Your task to perform on an android device: Open display settings Image 0: 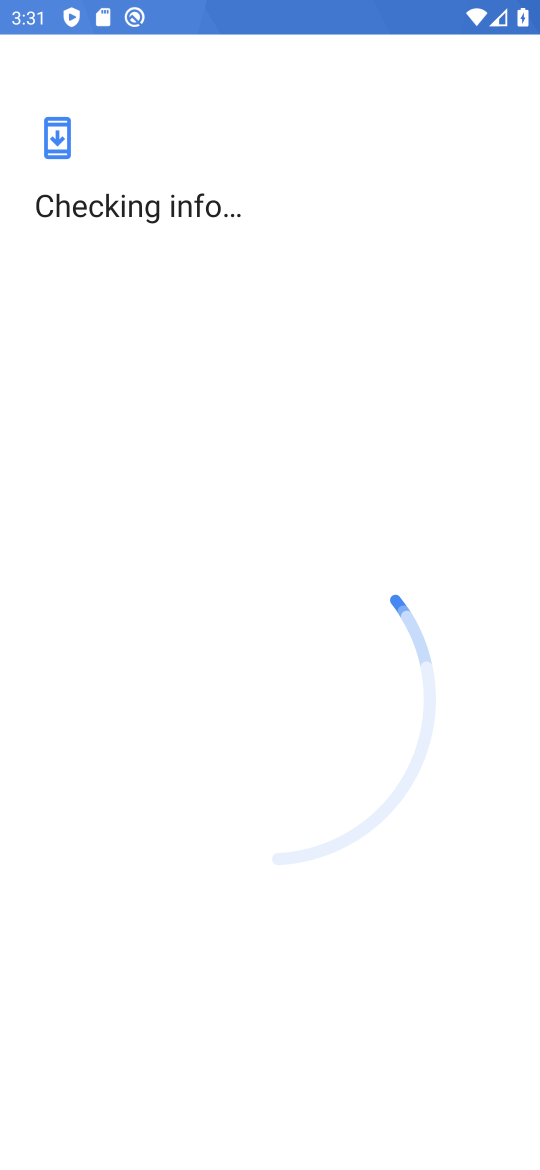
Step 0: drag from (334, 327) to (361, 91)
Your task to perform on an android device: Open display settings Image 1: 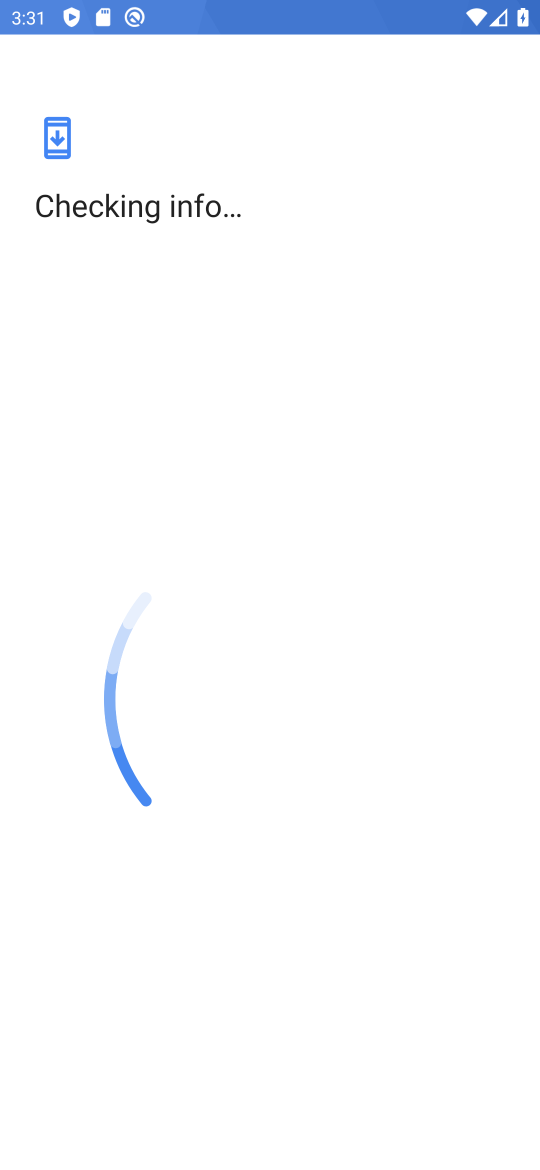
Step 1: press back button
Your task to perform on an android device: Open display settings Image 2: 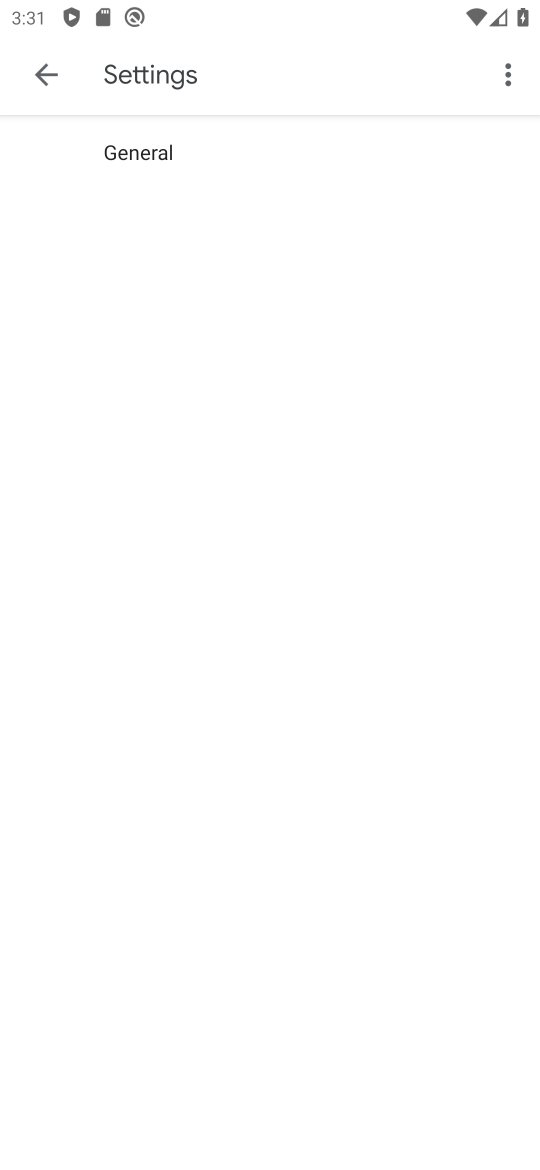
Step 2: press back button
Your task to perform on an android device: Open display settings Image 3: 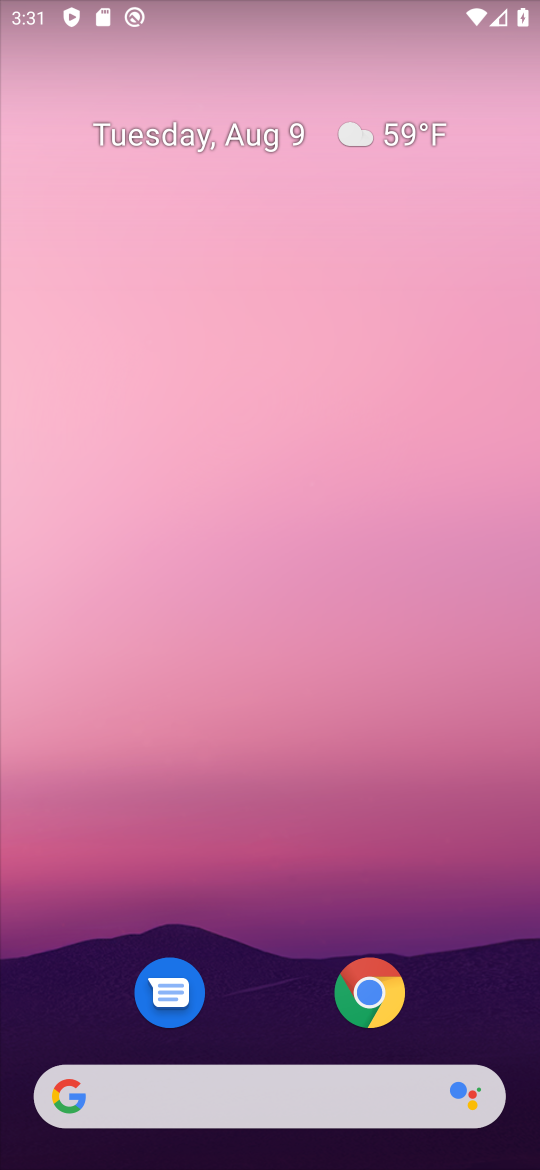
Step 3: drag from (286, 997) to (352, 77)
Your task to perform on an android device: Open display settings Image 4: 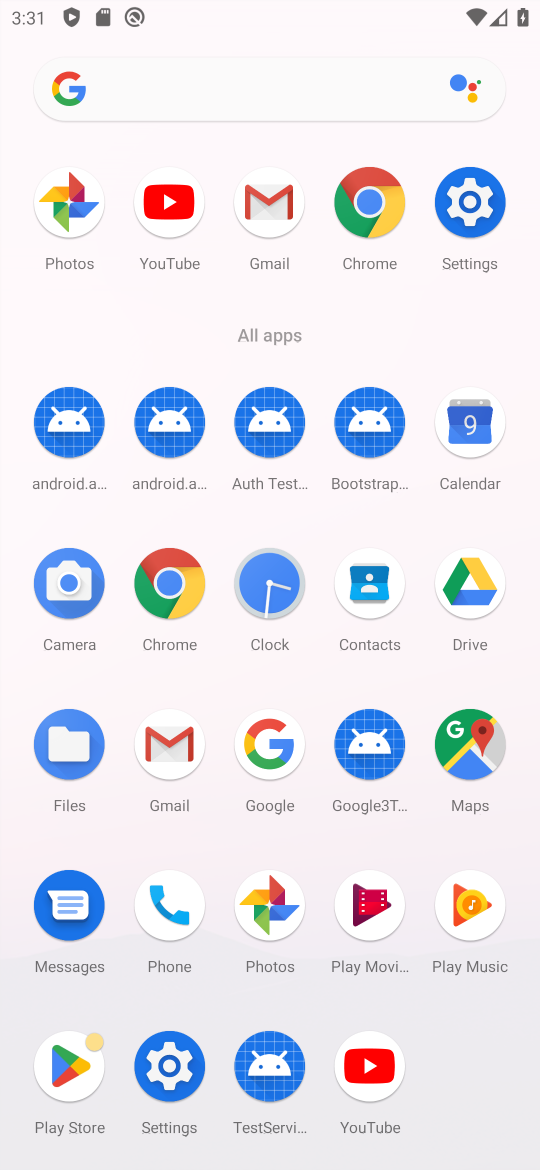
Step 4: click (481, 198)
Your task to perform on an android device: Open display settings Image 5: 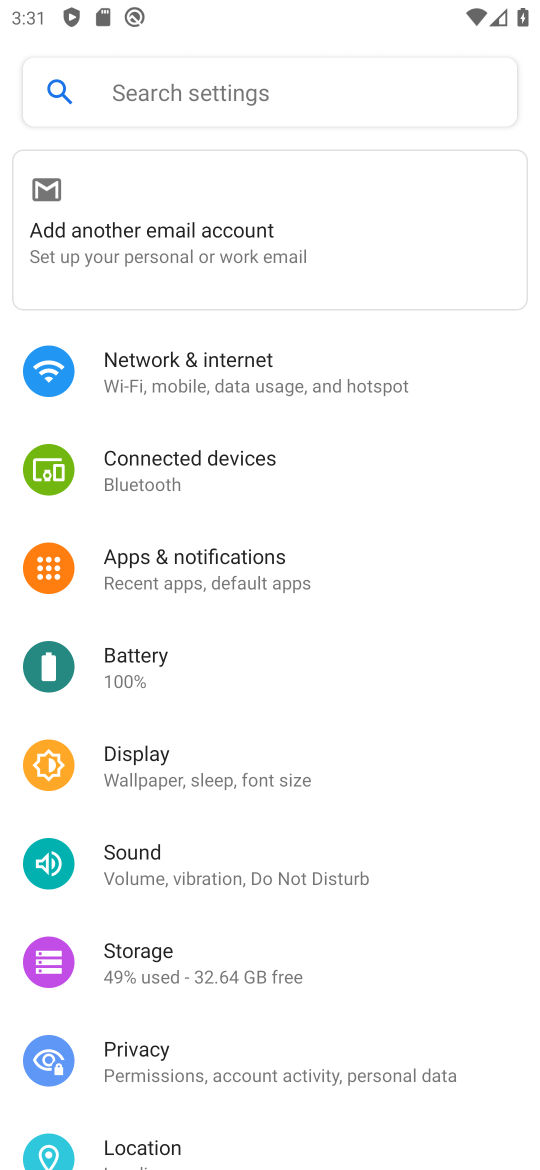
Step 5: click (260, 767)
Your task to perform on an android device: Open display settings Image 6: 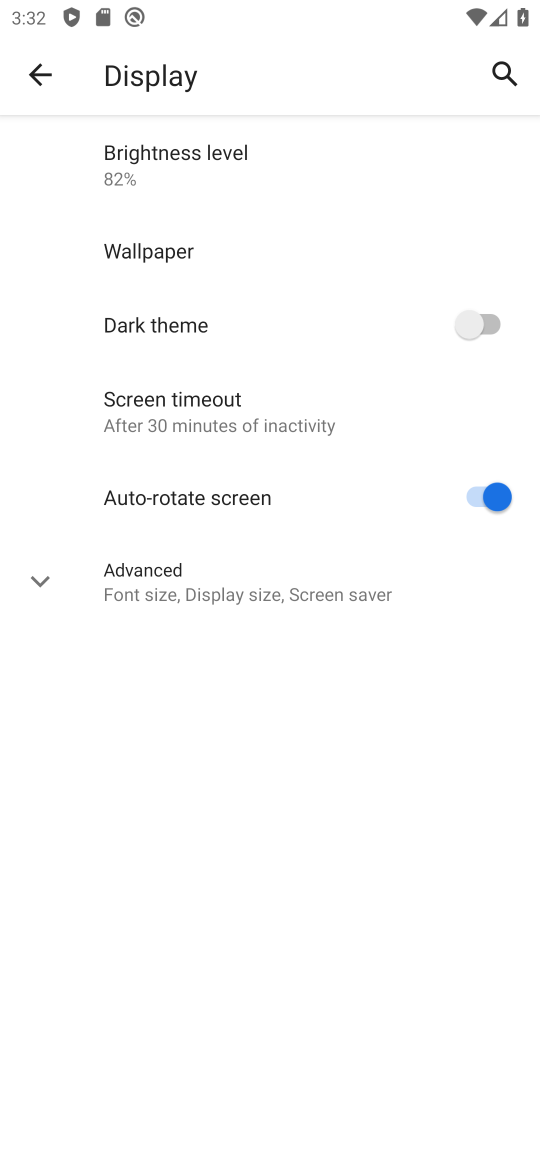
Step 6: task complete